Your task to perform on an android device: Open Yahoo.com Image 0: 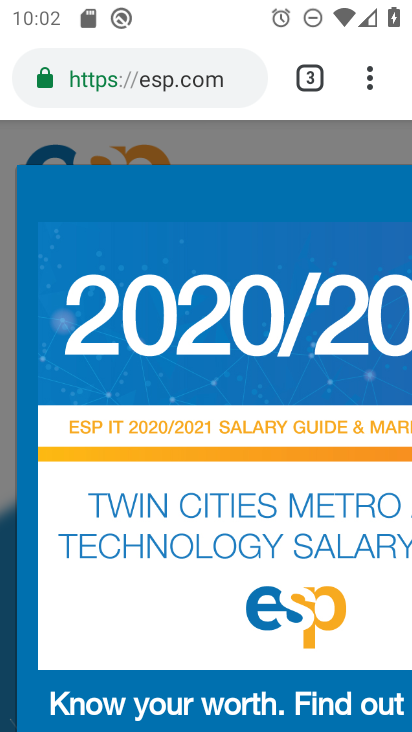
Step 0: click (143, 74)
Your task to perform on an android device: Open Yahoo.com Image 1: 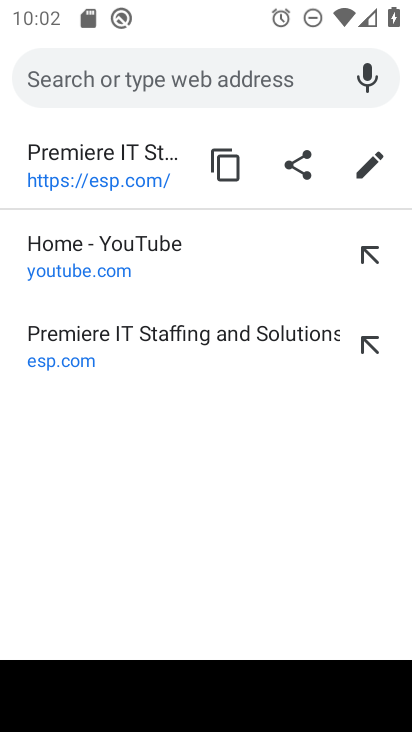
Step 1: type "yahoo.com"
Your task to perform on an android device: Open Yahoo.com Image 2: 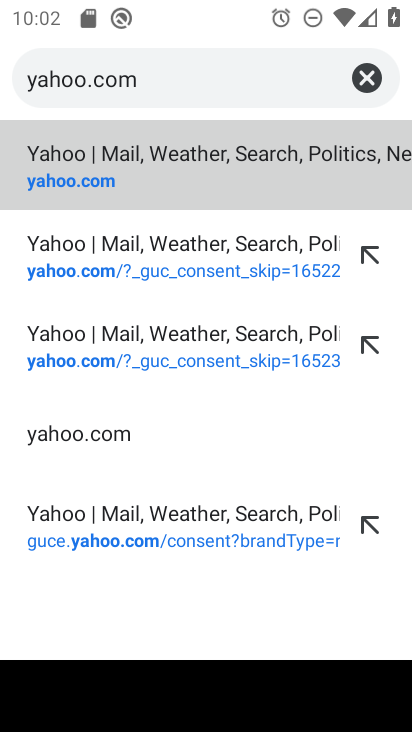
Step 2: click (128, 146)
Your task to perform on an android device: Open Yahoo.com Image 3: 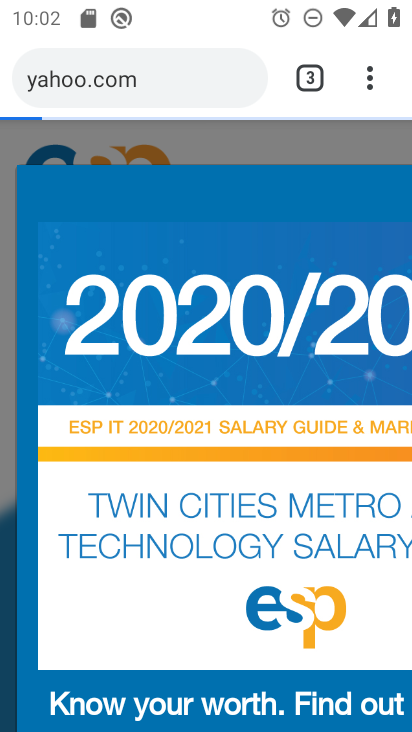
Step 3: task complete